Your task to perform on an android device: change keyboard looks Image 0: 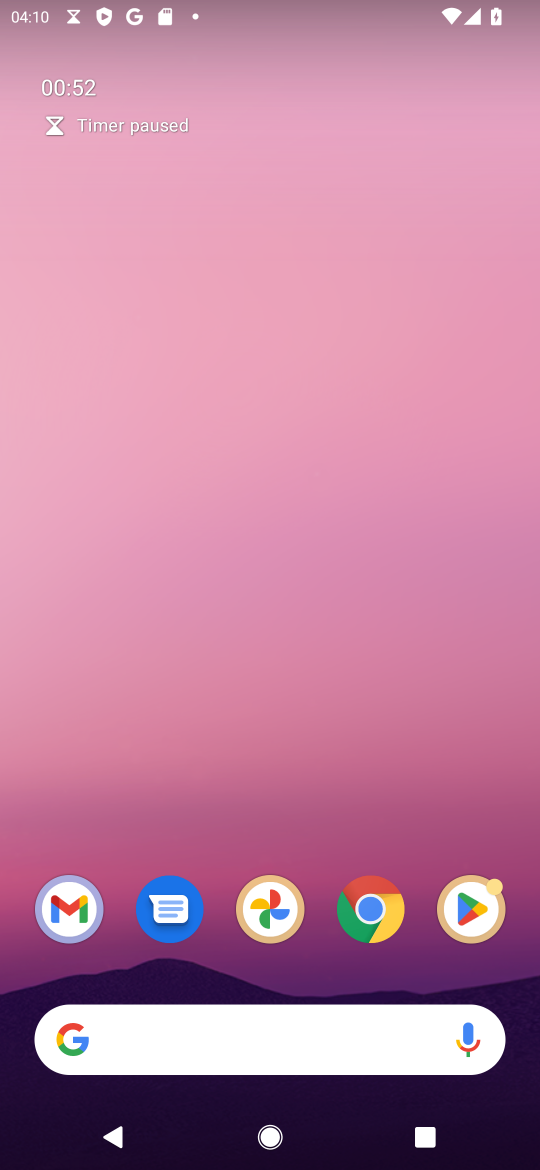
Step 0: drag from (232, 1027) to (326, 166)
Your task to perform on an android device: change keyboard looks Image 1: 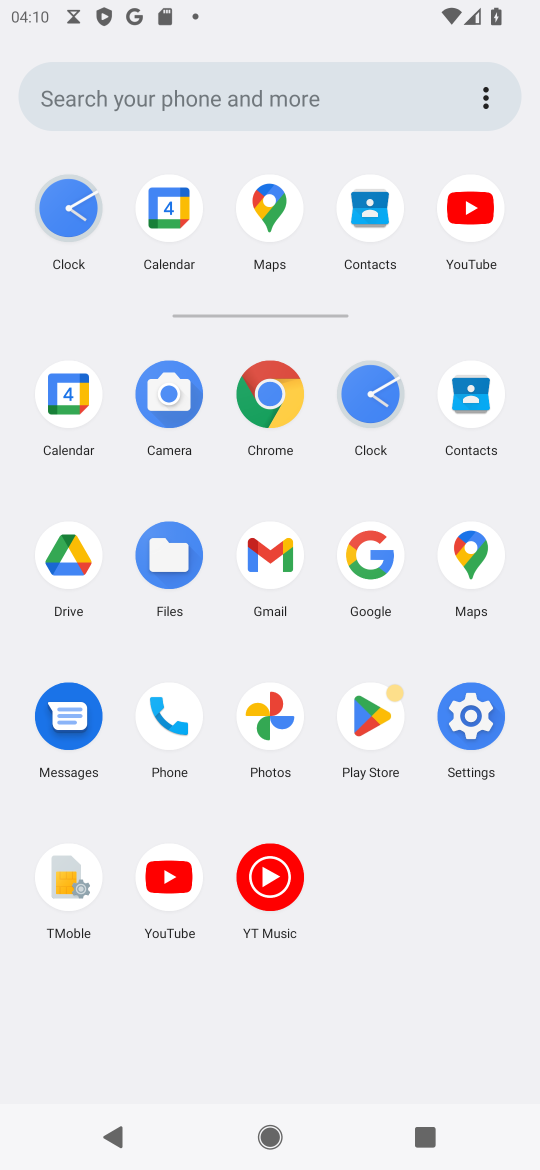
Step 1: click (477, 700)
Your task to perform on an android device: change keyboard looks Image 2: 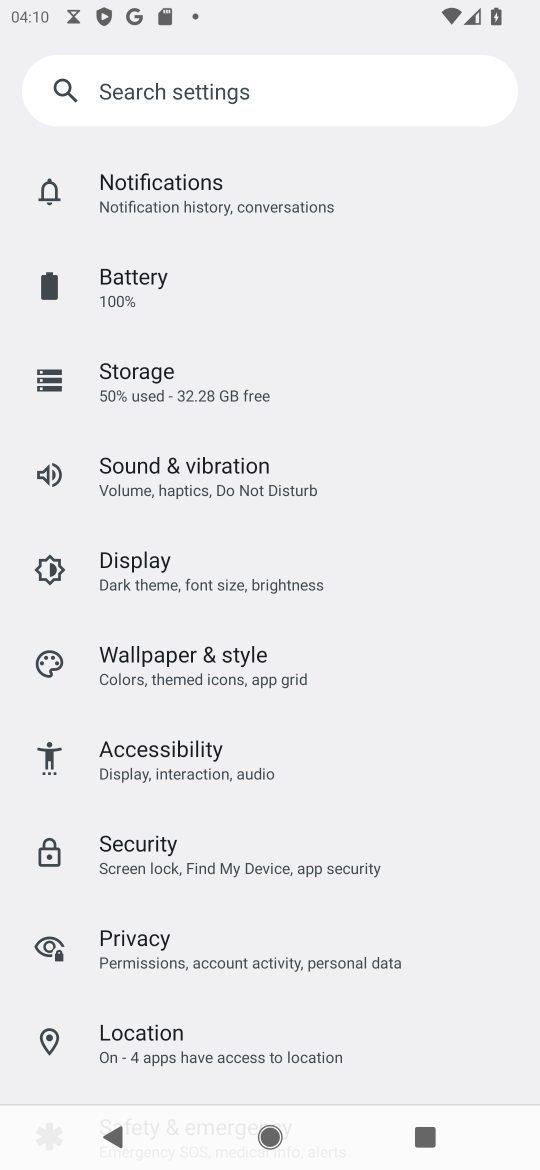
Step 2: drag from (214, 1005) to (330, 334)
Your task to perform on an android device: change keyboard looks Image 3: 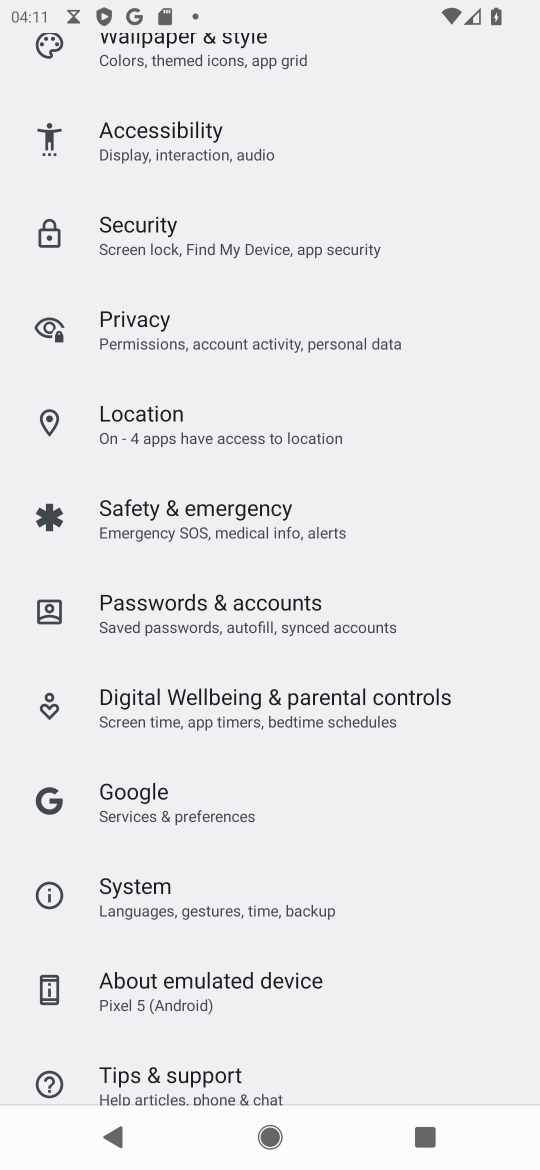
Step 3: click (195, 904)
Your task to perform on an android device: change keyboard looks Image 4: 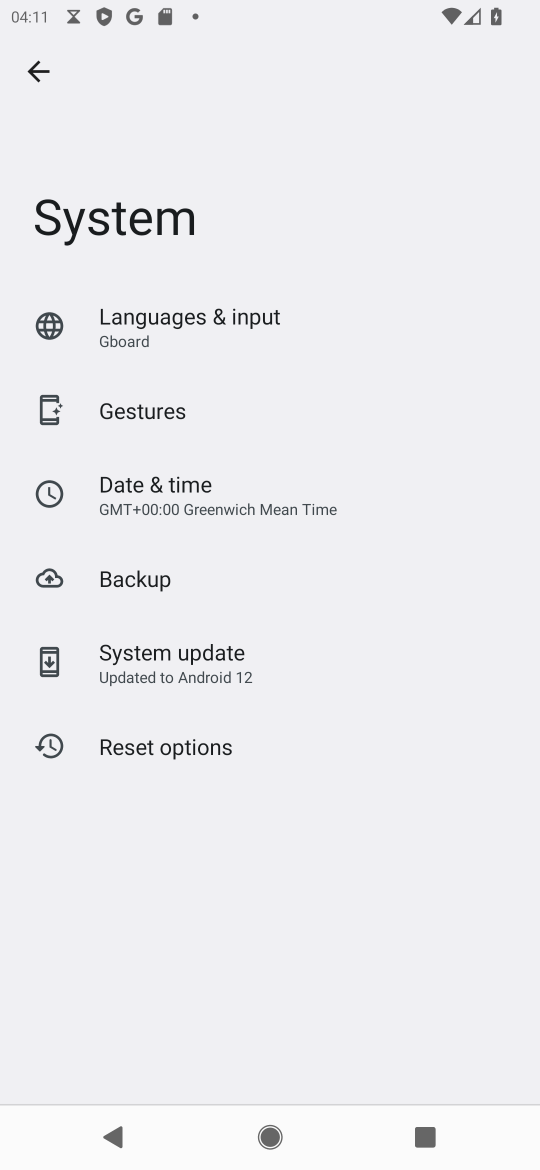
Step 4: click (196, 335)
Your task to perform on an android device: change keyboard looks Image 5: 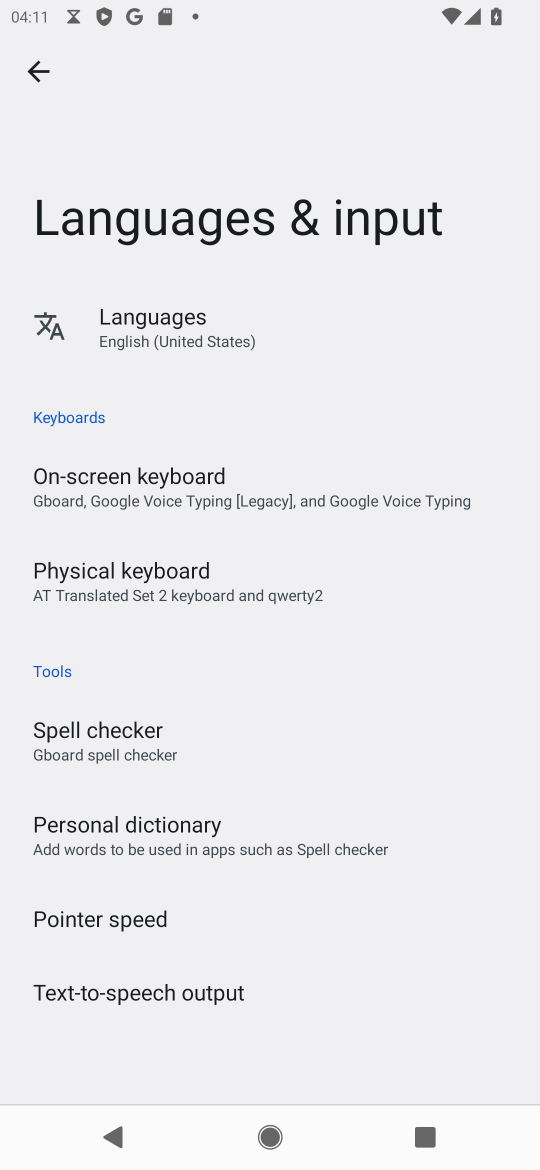
Step 5: click (39, 60)
Your task to perform on an android device: change keyboard looks Image 6: 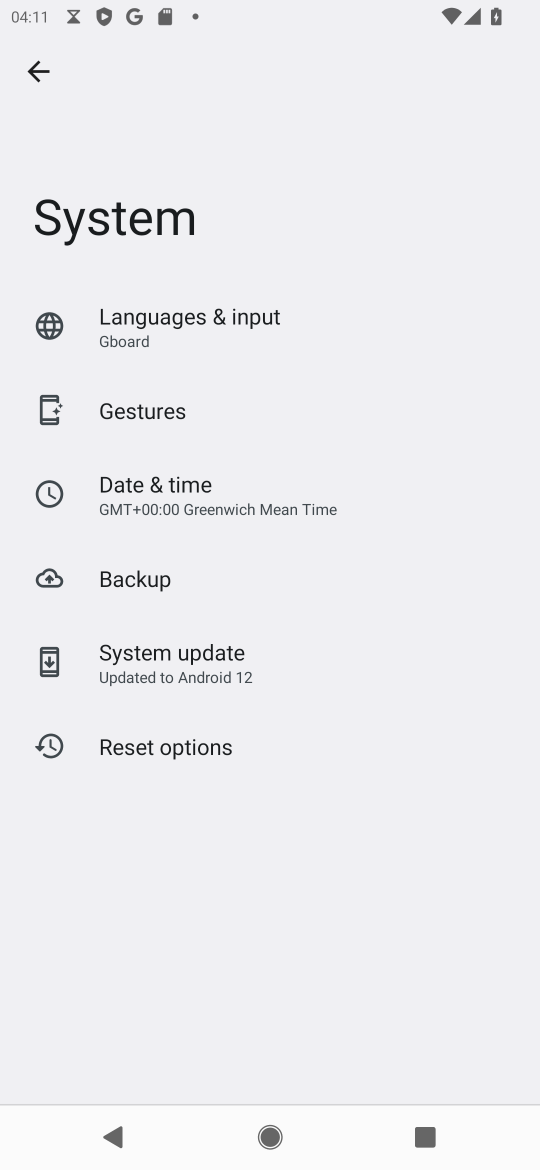
Step 6: click (188, 418)
Your task to perform on an android device: change keyboard looks Image 7: 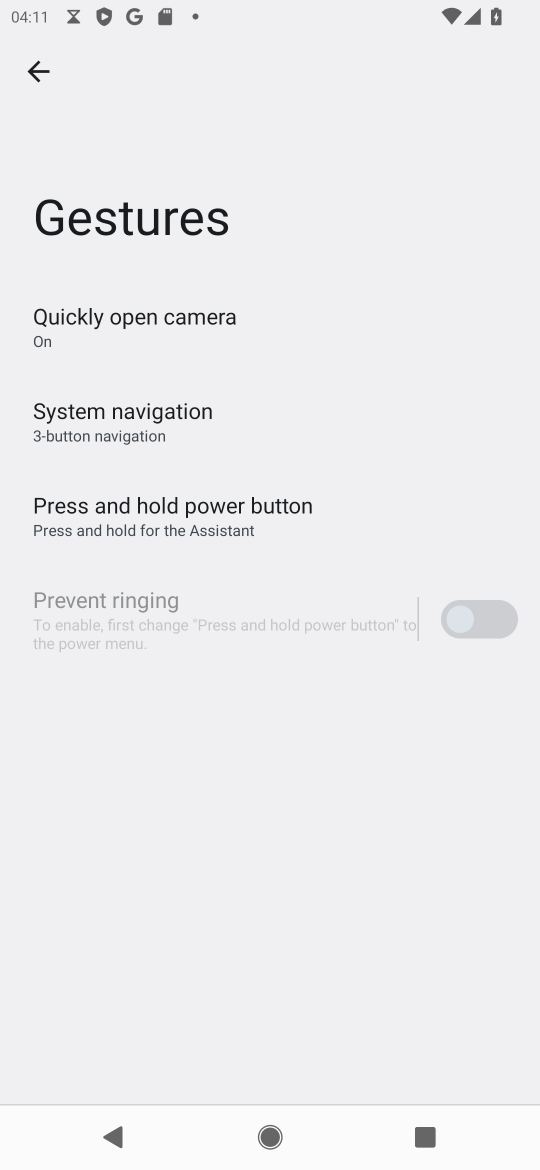
Step 7: task complete